Your task to perform on an android device: Go to wifi settings Image 0: 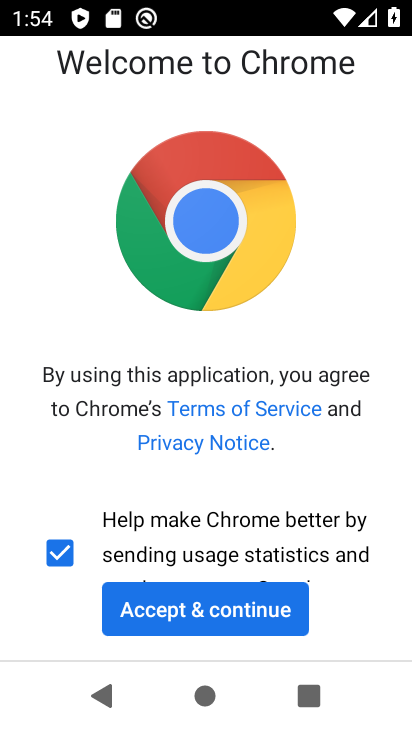
Step 0: press home button
Your task to perform on an android device: Go to wifi settings Image 1: 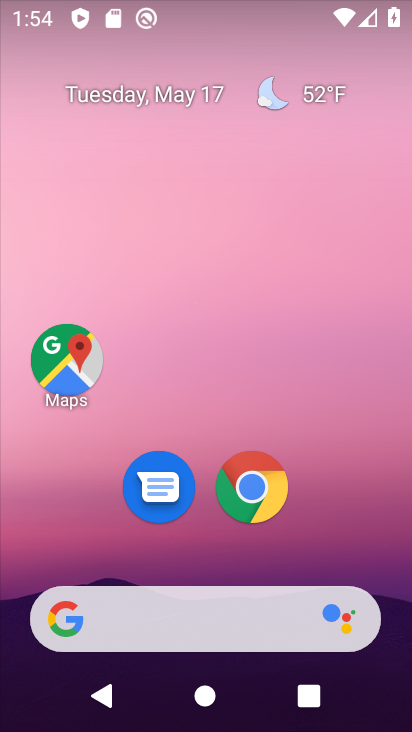
Step 1: drag from (389, 650) to (390, 214)
Your task to perform on an android device: Go to wifi settings Image 2: 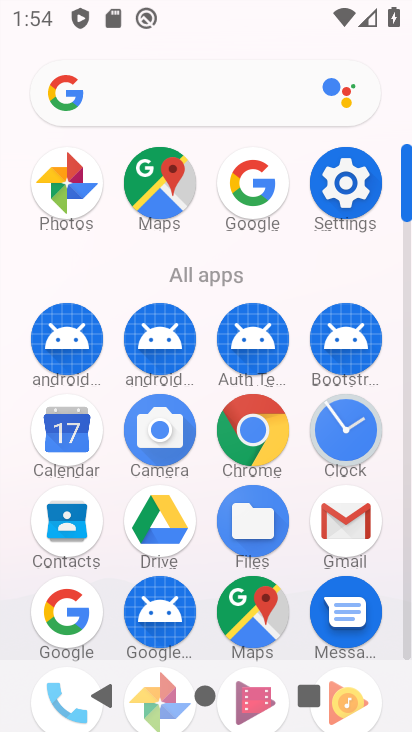
Step 2: click (342, 200)
Your task to perform on an android device: Go to wifi settings Image 3: 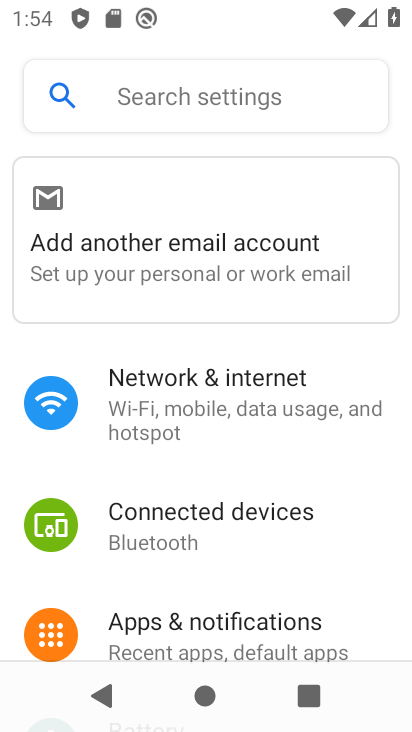
Step 3: click (206, 393)
Your task to perform on an android device: Go to wifi settings Image 4: 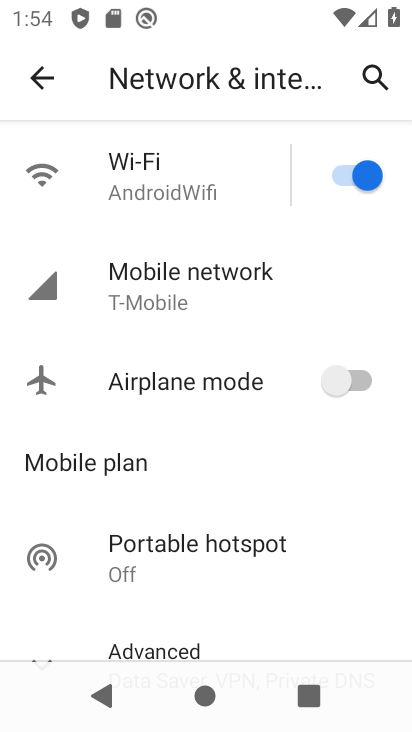
Step 4: click (188, 172)
Your task to perform on an android device: Go to wifi settings Image 5: 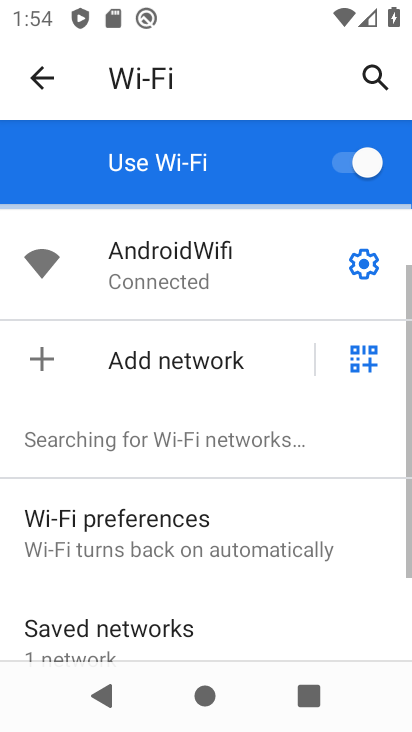
Step 5: click (347, 268)
Your task to perform on an android device: Go to wifi settings Image 6: 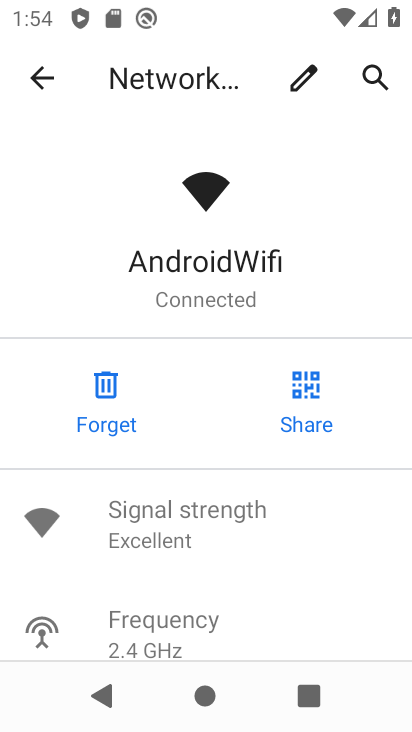
Step 6: task complete